Your task to perform on an android device: toggle translation in the chrome app Image 0: 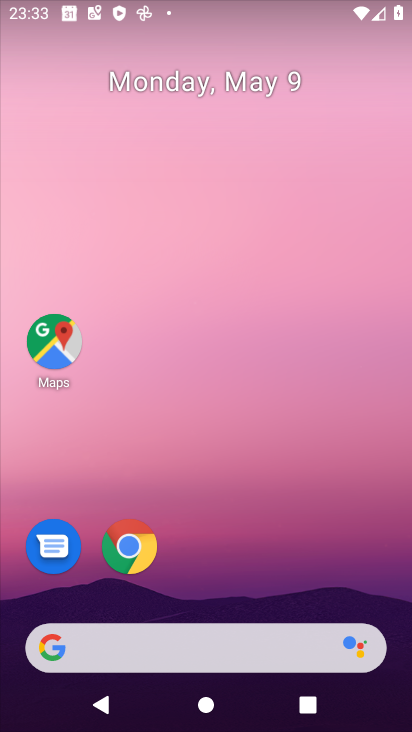
Step 0: click (126, 556)
Your task to perform on an android device: toggle translation in the chrome app Image 1: 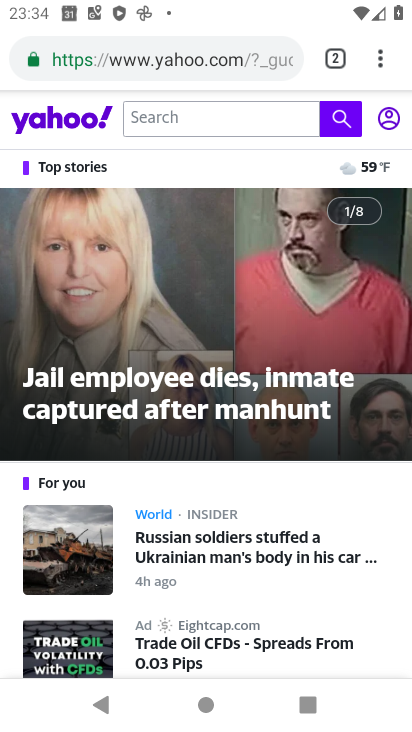
Step 1: click (388, 57)
Your task to perform on an android device: toggle translation in the chrome app Image 2: 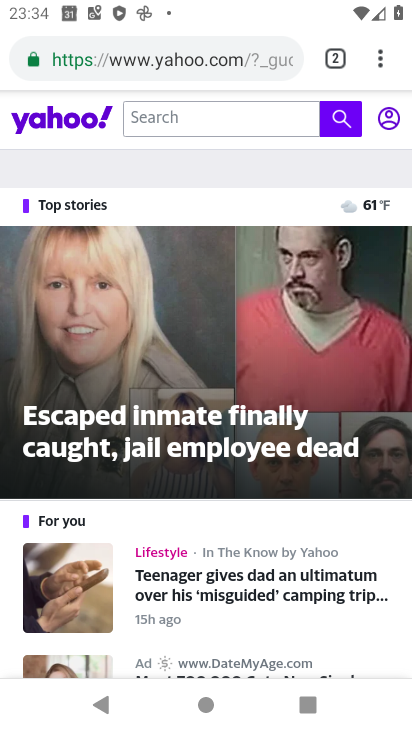
Step 2: click (377, 63)
Your task to perform on an android device: toggle translation in the chrome app Image 3: 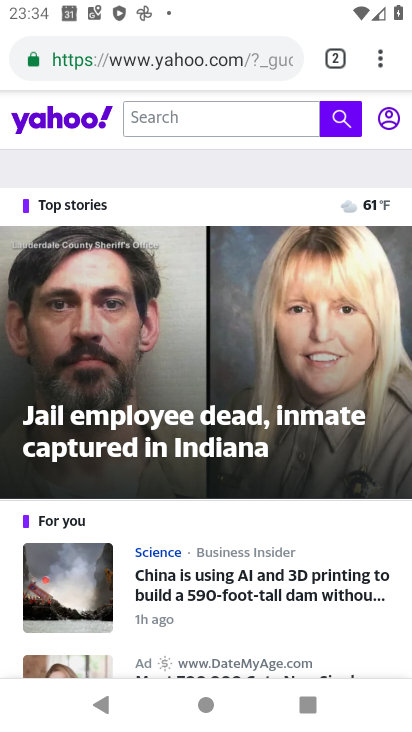
Step 3: drag from (377, 59) to (291, 570)
Your task to perform on an android device: toggle translation in the chrome app Image 4: 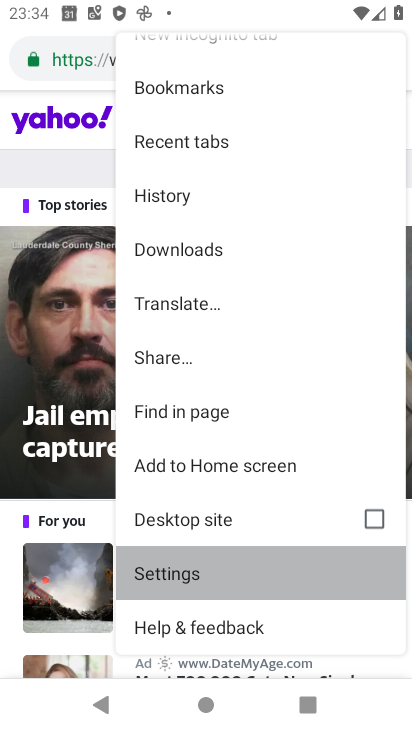
Step 4: click (291, 570)
Your task to perform on an android device: toggle translation in the chrome app Image 5: 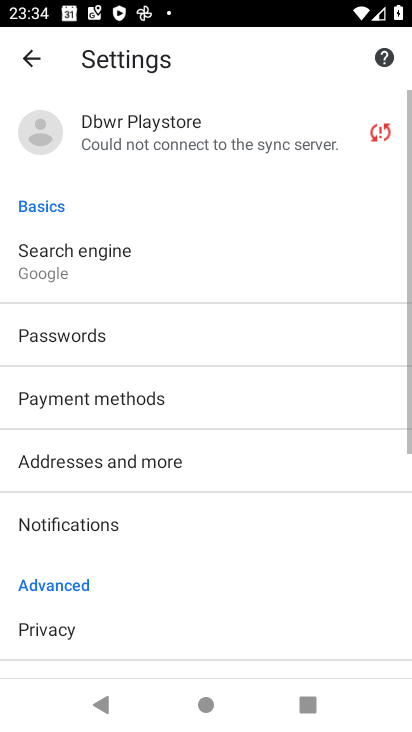
Step 5: drag from (181, 624) to (243, 175)
Your task to perform on an android device: toggle translation in the chrome app Image 6: 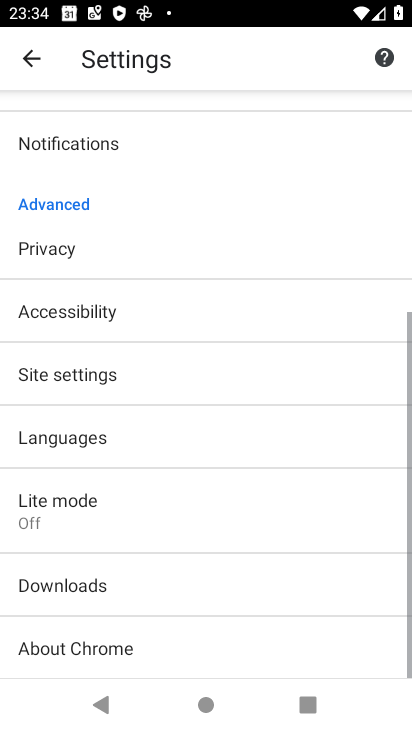
Step 6: click (116, 450)
Your task to perform on an android device: toggle translation in the chrome app Image 7: 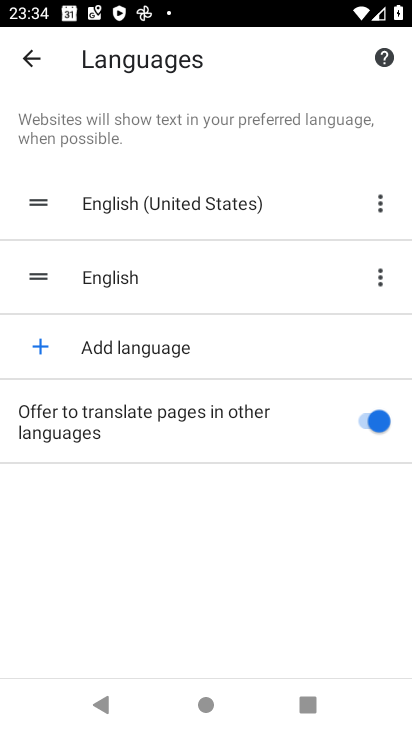
Step 7: click (370, 421)
Your task to perform on an android device: toggle translation in the chrome app Image 8: 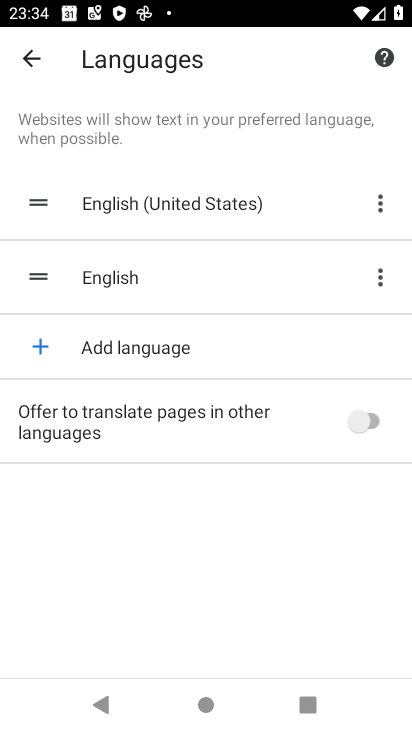
Step 8: task complete